Your task to perform on an android device: turn off notifications settings in the gmail app Image 0: 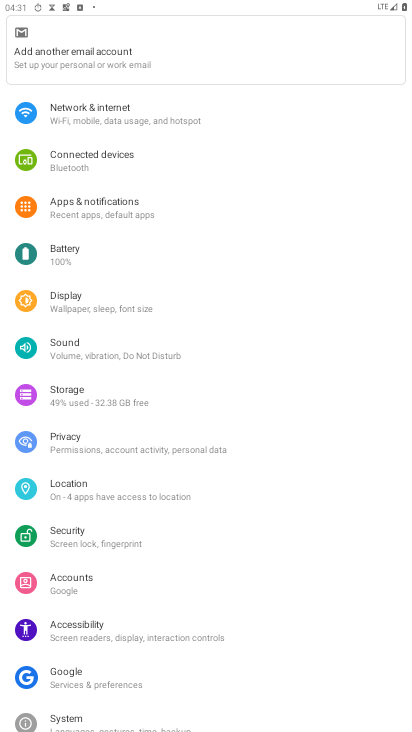
Step 0: click (102, 208)
Your task to perform on an android device: turn off notifications settings in the gmail app Image 1: 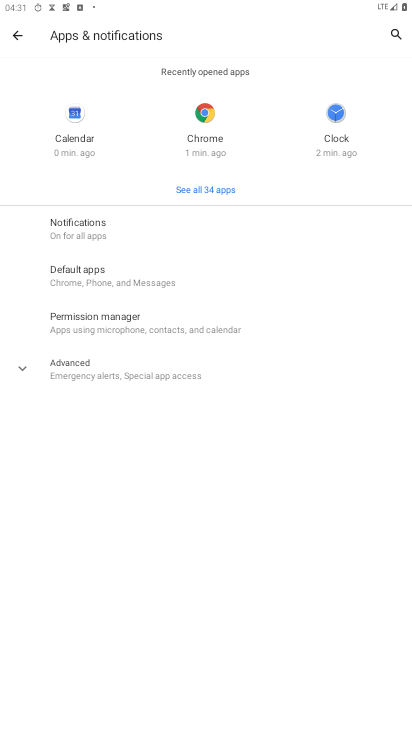
Step 1: press home button
Your task to perform on an android device: turn off notifications settings in the gmail app Image 2: 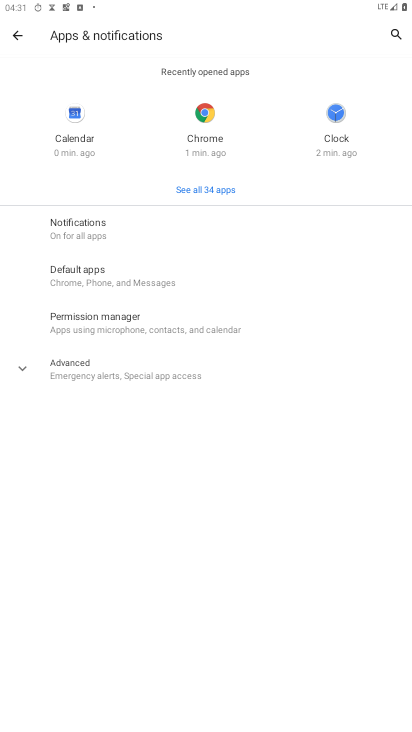
Step 2: press home button
Your task to perform on an android device: turn off notifications settings in the gmail app Image 3: 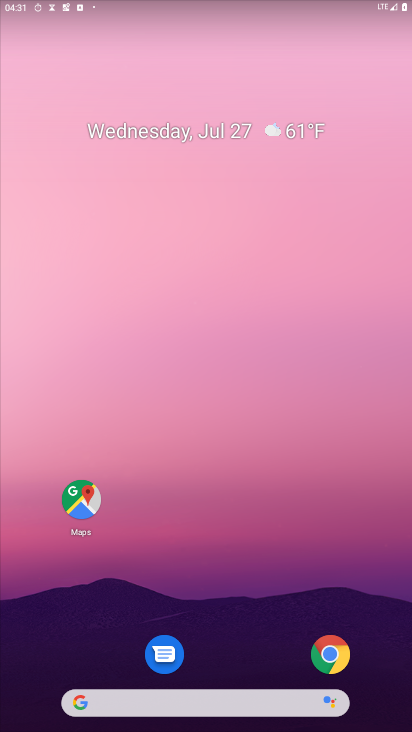
Step 3: drag from (162, 650) to (154, 67)
Your task to perform on an android device: turn off notifications settings in the gmail app Image 4: 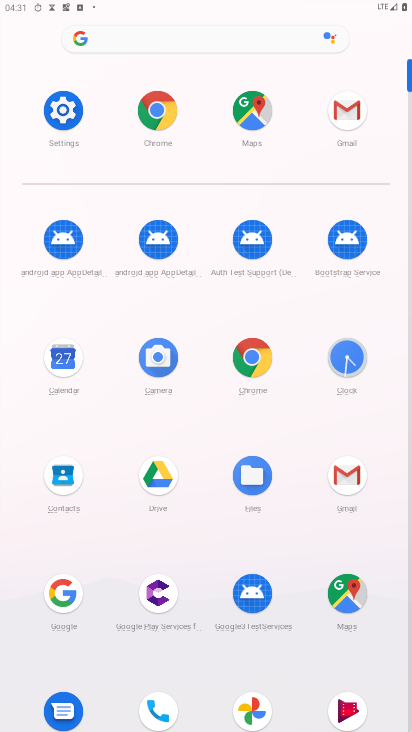
Step 4: click (338, 473)
Your task to perform on an android device: turn off notifications settings in the gmail app Image 5: 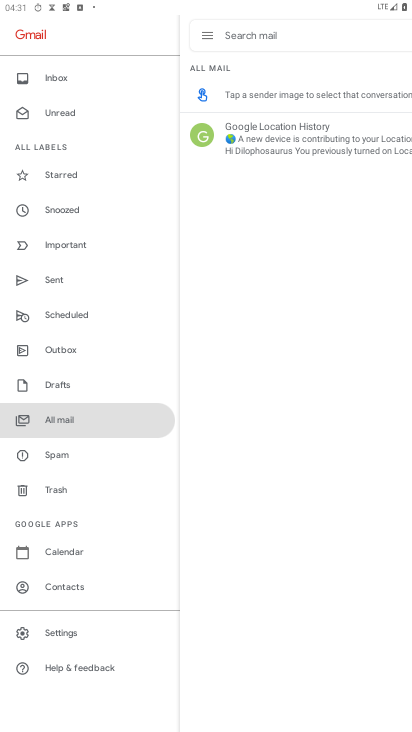
Step 5: click (80, 622)
Your task to perform on an android device: turn off notifications settings in the gmail app Image 6: 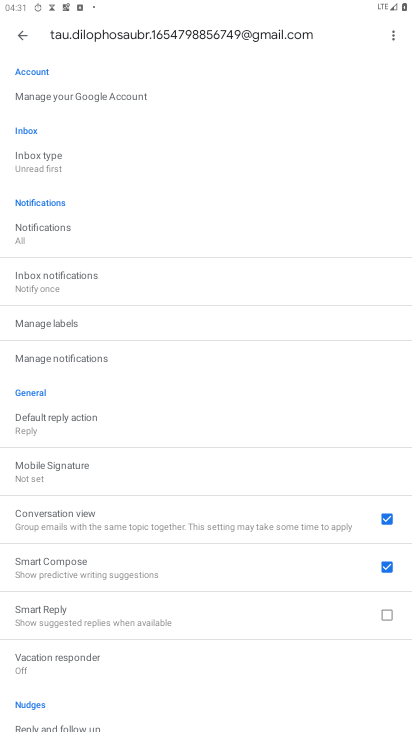
Step 6: click (88, 353)
Your task to perform on an android device: turn off notifications settings in the gmail app Image 7: 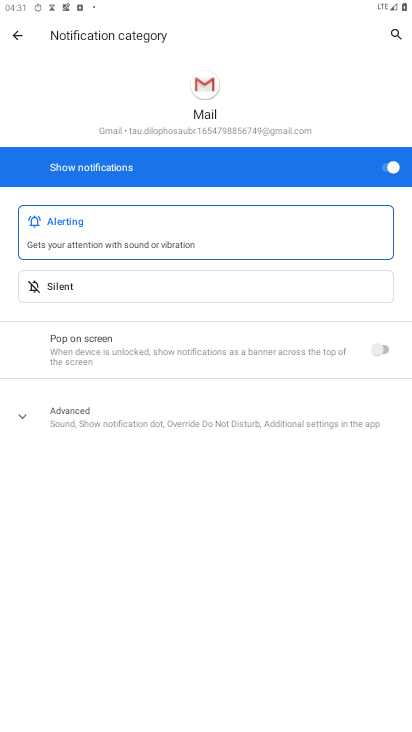
Step 7: click (399, 165)
Your task to perform on an android device: turn off notifications settings in the gmail app Image 8: 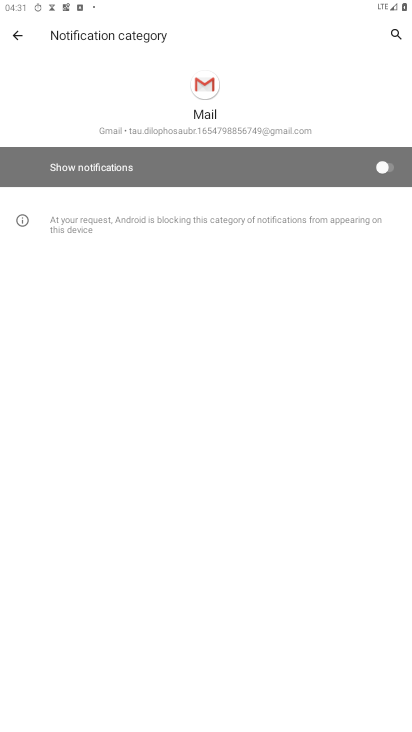
Step 8: task complete